Your task to perform on an android device: Show me recent news Image 0: 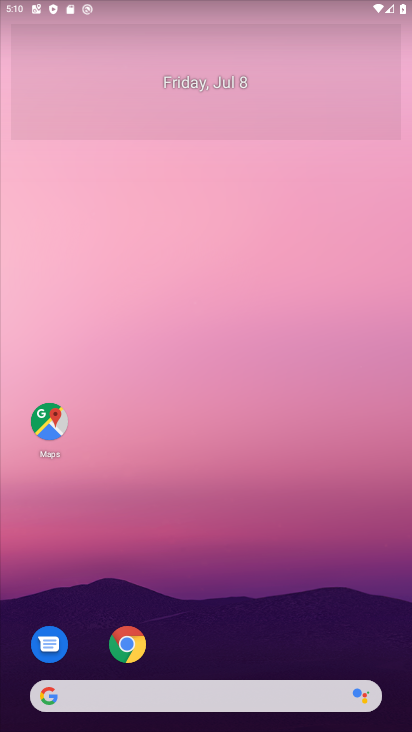
Step 0: click (213, 702)
Your task to perform on an android device: Show me recent news Image 1: 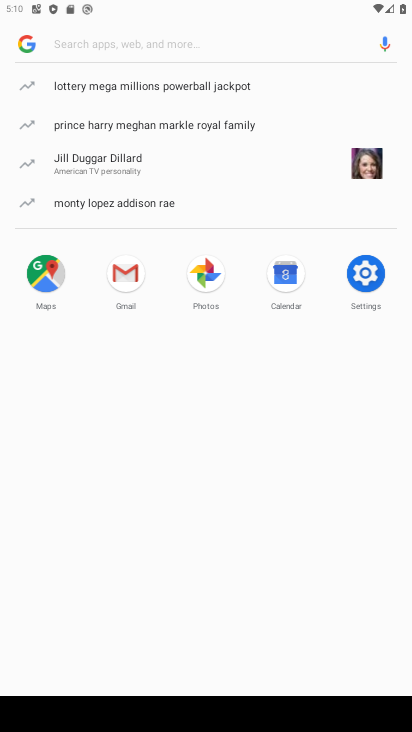
Step 1: type "recent news"
Your task to perform on an android device: Show me recent news Image 2: 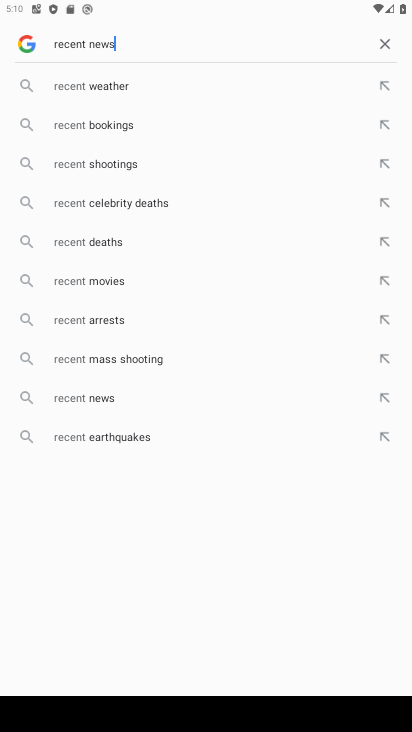
Step 2: press enter
Your task to perform on an android device: Show me recent news Image 3: 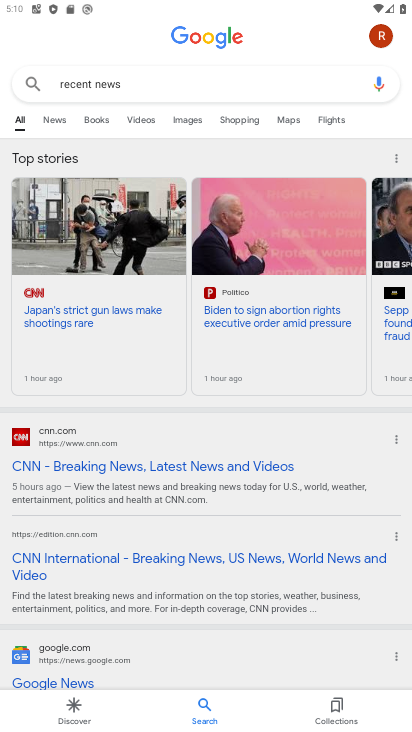
Step 3: task complete